Your task to perform on an android device: Go to eBay Image 0: 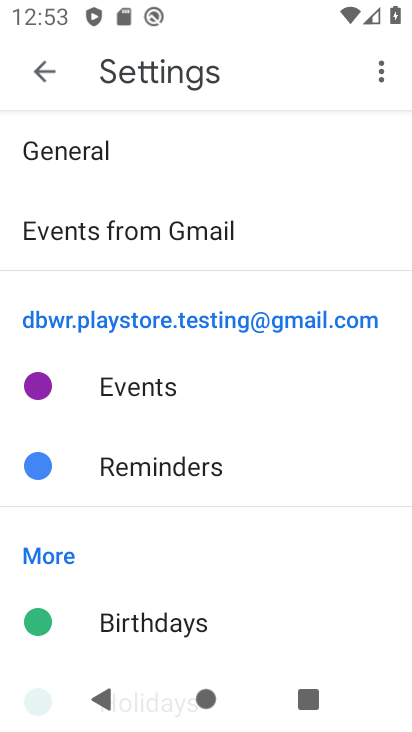
Step 0: press back button
Your task to perform on an android device: Go to eBay Image 1: 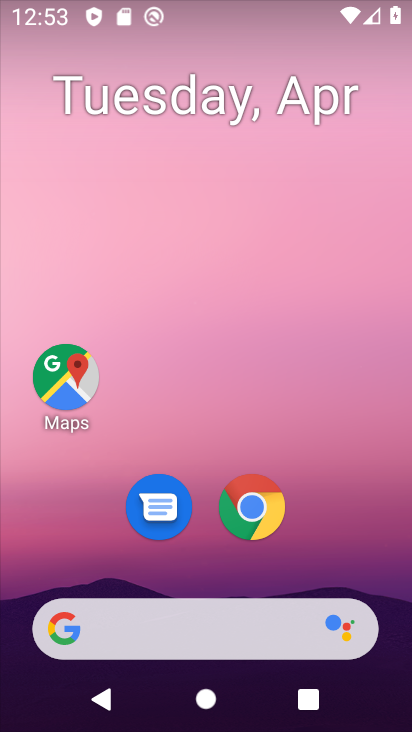
Step 1: click (247, 523)
Your task to perform on an android device: Go to eBay Image 2: 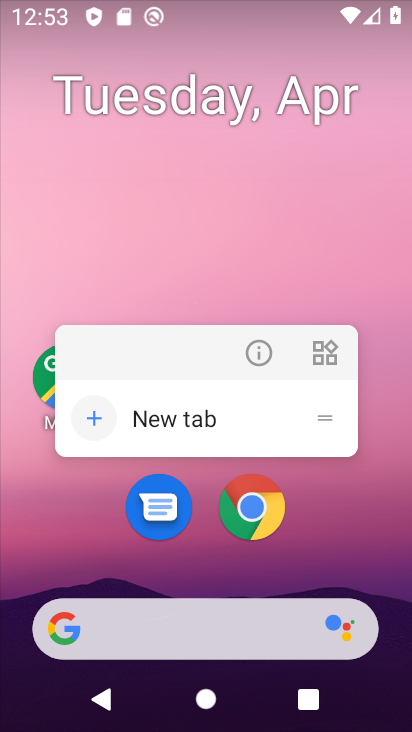
Step 2: click (263, 523)
Your task to perform on an android device: Go to eBay Image 3: 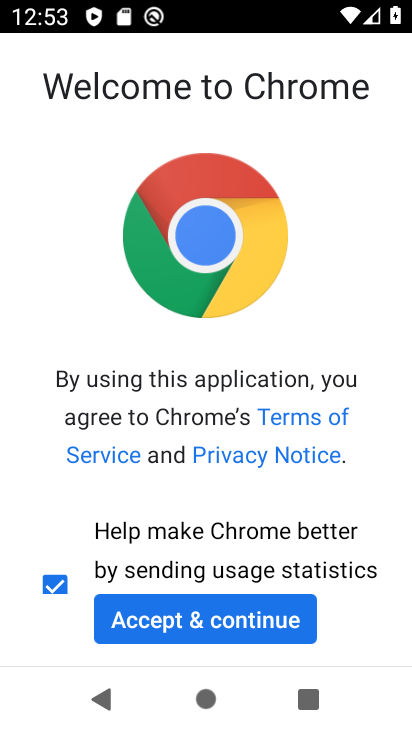
Step 3: click (197, 603)
Your task to perform on an android device: Go to eBay Image 4: 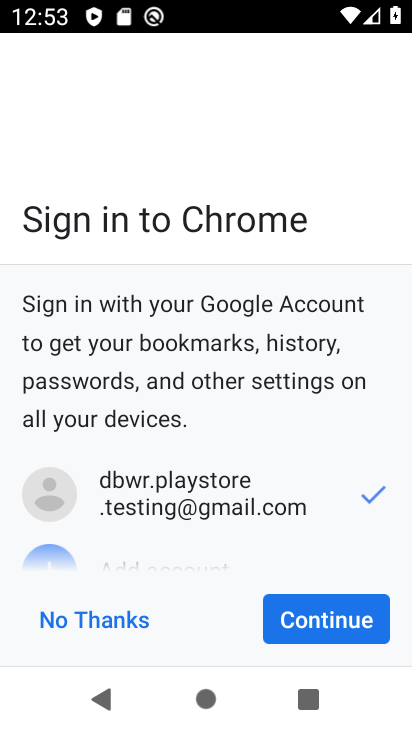
Step 4: click (339, 612)
Your task to perform on an android device: Go to eBay Image 5: 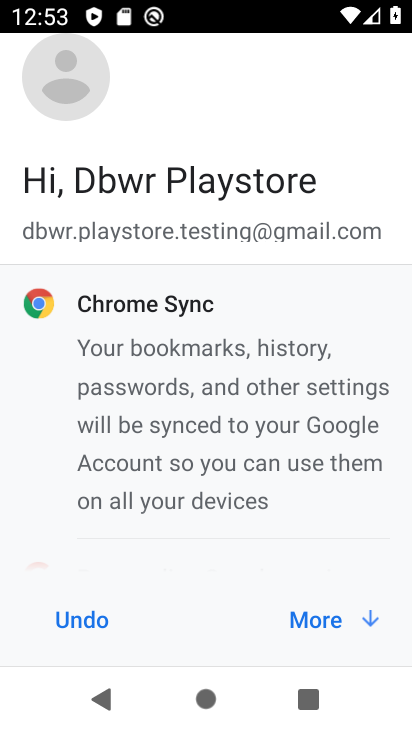
Step 5: click (339, 612)
Your task to perform on an android device: Go to eBay Image 6: 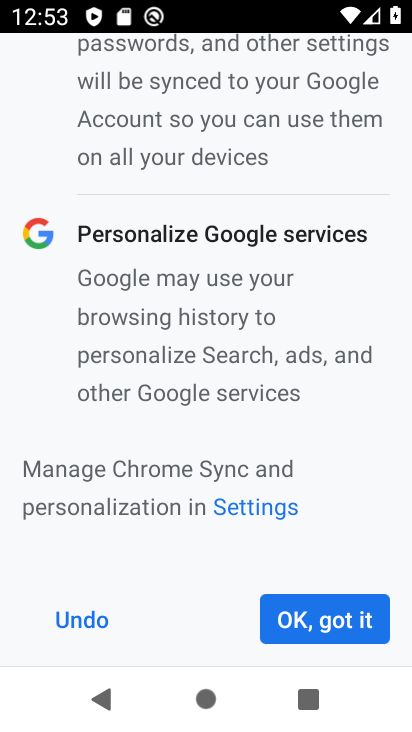
Step 6: click (339, 612)
Your task to perform on an android device: Go to eBay Image 7: 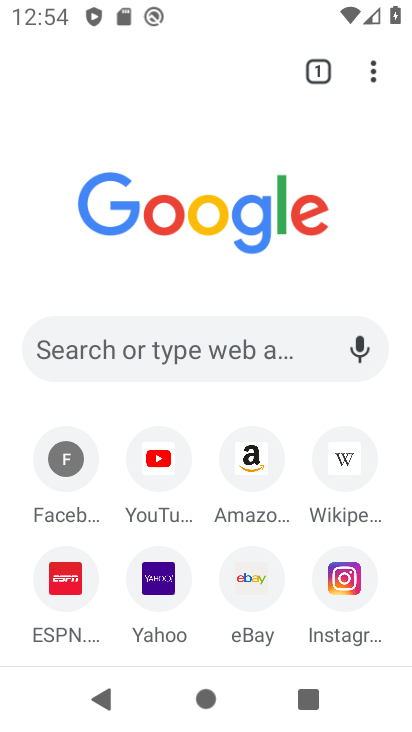
Step 7: click (266, 364)
Your task to perform on an android device: Go to eBay Image 8: 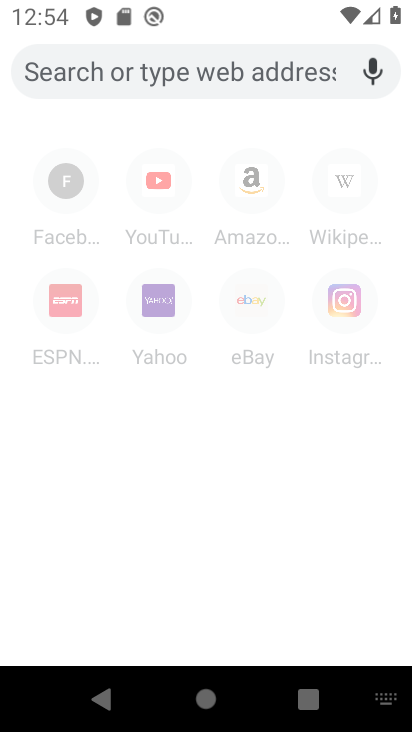
Step 8: type "ebay.com"
Your task to perform on an android device: Go to eBay Image 9: 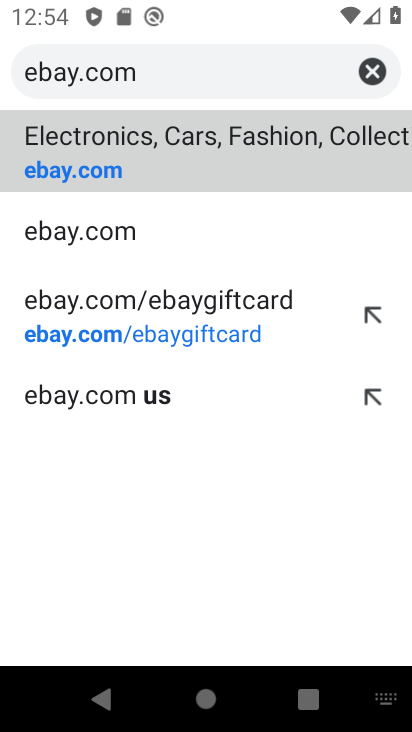
Step 9: click (135, 147)
Your task to perform on an android device: Go to eBay Image 10: 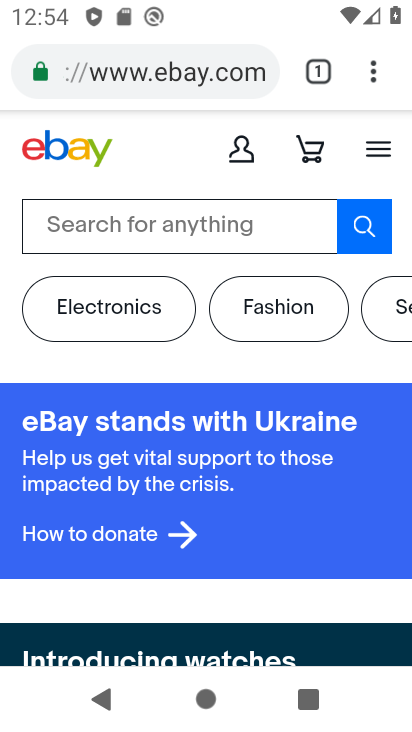
Step 10: task complete